Your task to perform on an android device: Do I have any events this weekend? Image 0: 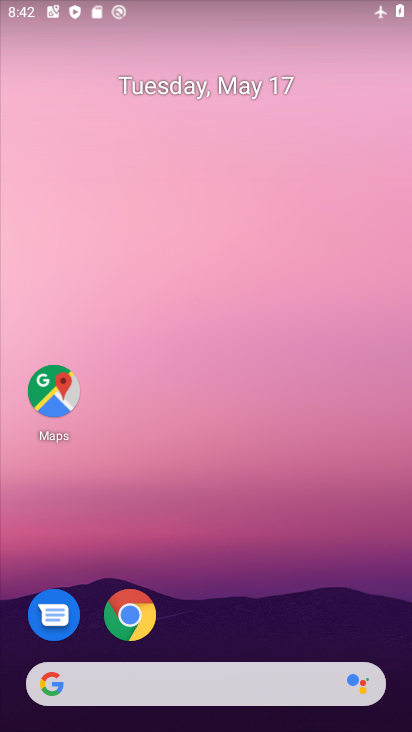
Step 0: drag from (218, 537) to (228, 216)
Your task to perform on an android device: Do I have any events this weekend? Image 1: 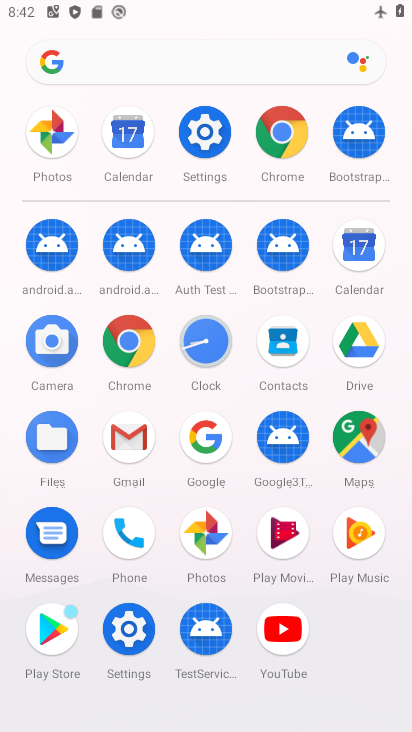
Step 1: click (363, 241)
Your task to perform on an android device: Do I have any events this weekend? Image 2: 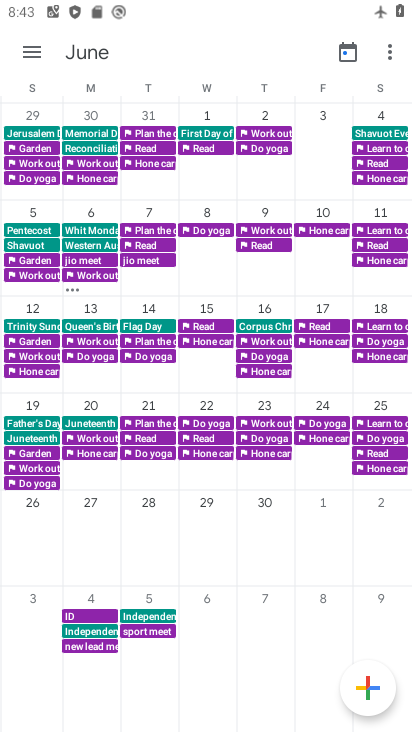
Step 2: drag from (156, 231) to (359, 246)
Your task to perform on an android device: Do I have any events this weekend? Image 3: 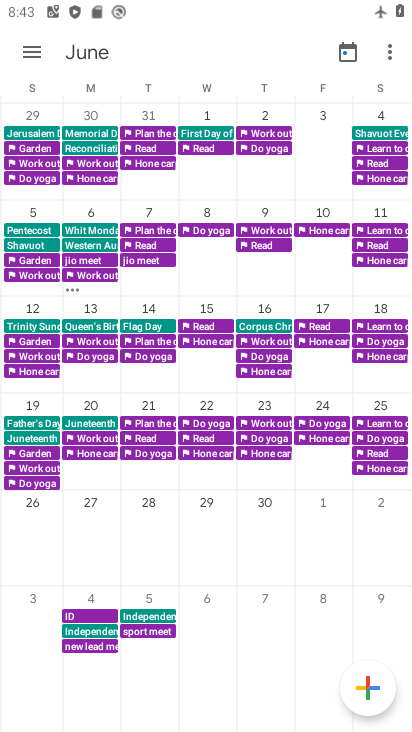
Step 3: drag from (70, 283) to (410, 300)
Your task to perform on an android device: Do I have any events this weekend? Image 4: 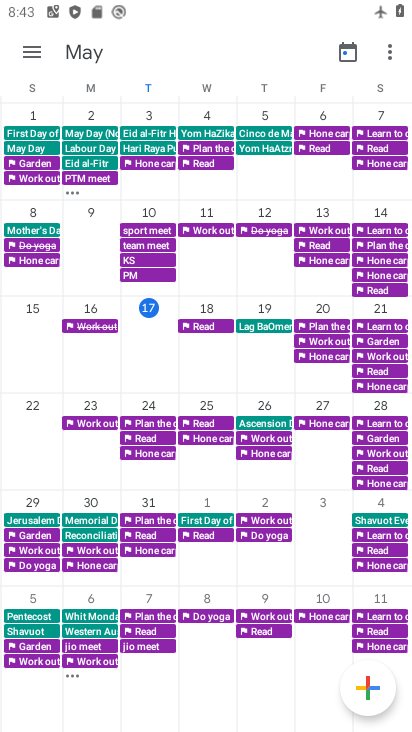
Step 4: click (270, 306)
Your task to perform on an android device: Do I have any events this weekend? Image 5: 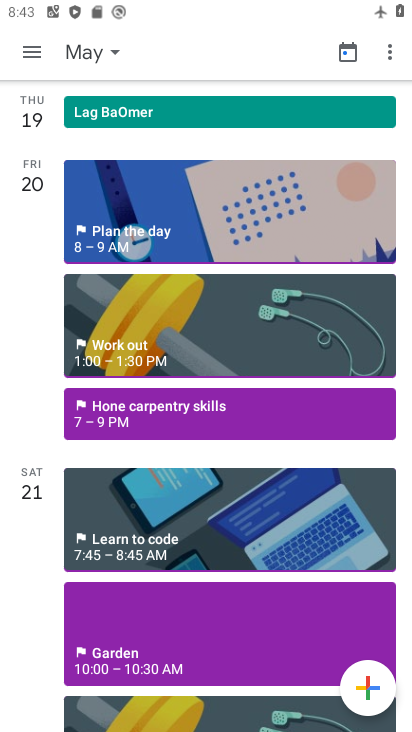
Step 5: task complete